Your task to perform on an android device: turn off translation in the chrome app Image 0: 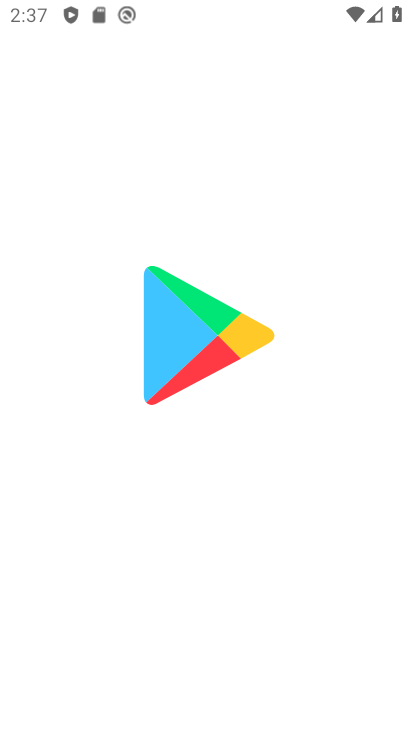
Step 0: press home button
Your task to perform on an android device: turn off translation in the chrome app Image 1: 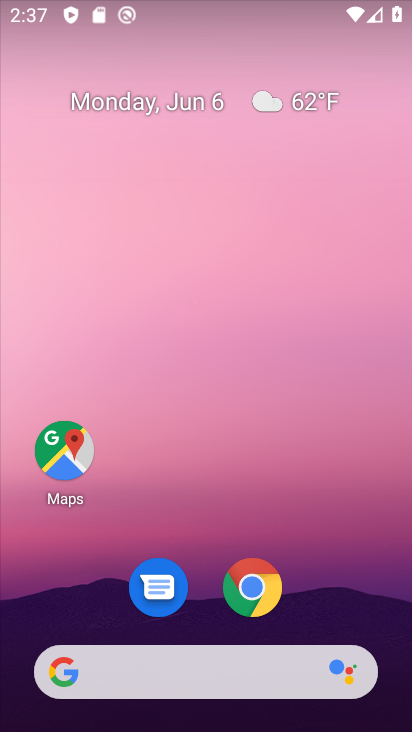
Step 1: click (241, 588)
Your task to perform on an android device: turn off translation in the chrome app Image 2: 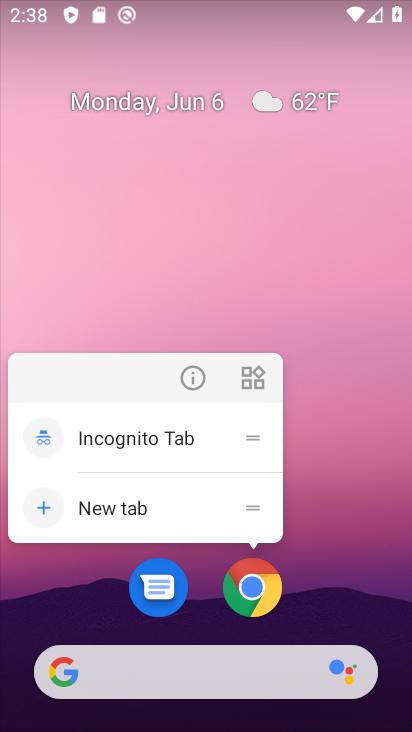
Step 2: click (257, 576)
Your task to perform on an android device: turn off translation in the chrome app Image 3: 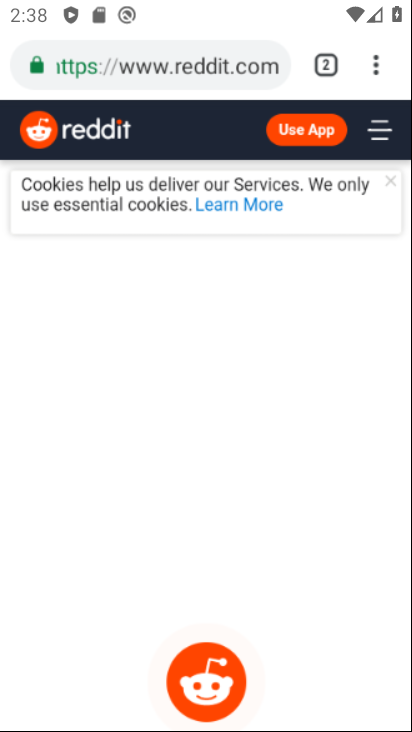
Step 3: click (250, 586)
Your task to perform on an android device: turn off translation in the chrome app Image 4: 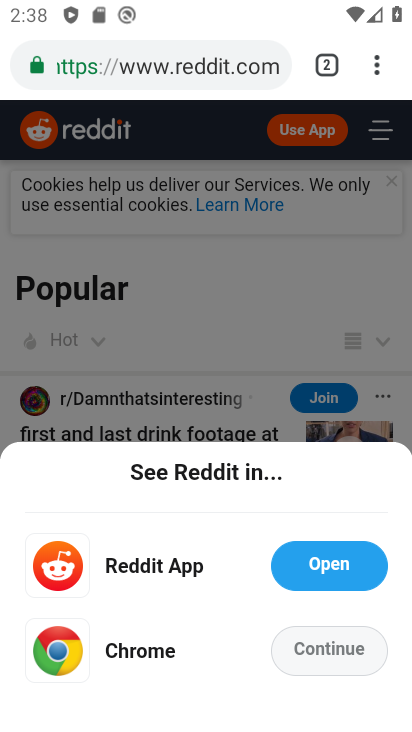
Step 4: click (376, 64)
Your task to perform on an android device: turn off translation in the chrome app Image 5: 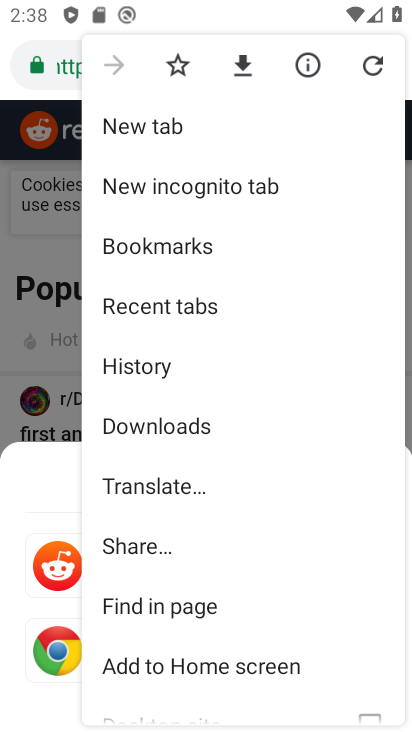
Step 5: drag from (158, 658) to (188, 218)
Your task to perform on an android device: turn off translation in the chrome app Image 6: 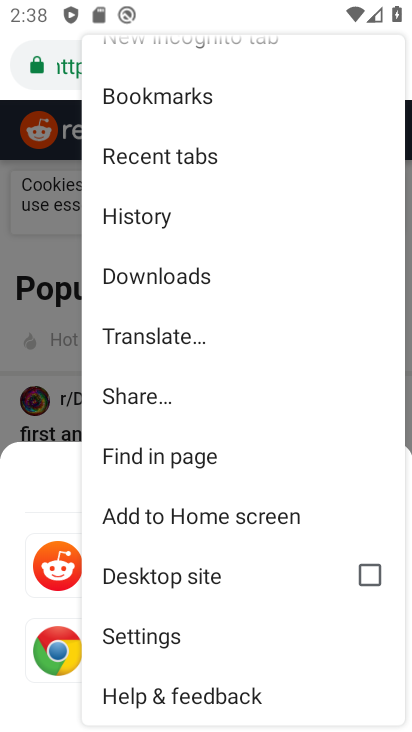
Step 6: click (164, 640)
Your task to perform on an android device: turn off translation in the chrome app Image 7: 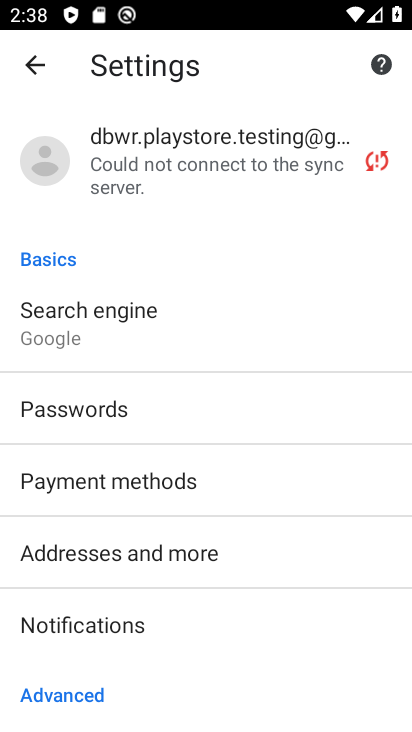
Step 7: drag from (96, 614) to (96, 183)
Your task to perform on an android device: turn off translation in the chrome app Image 8: 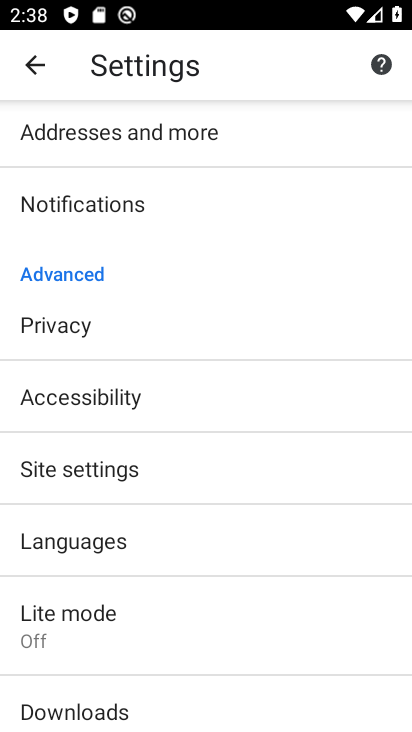
Step 8: click (78, 524)
Your task to perform on an android device: turn off translation in the chrome app Image 9: 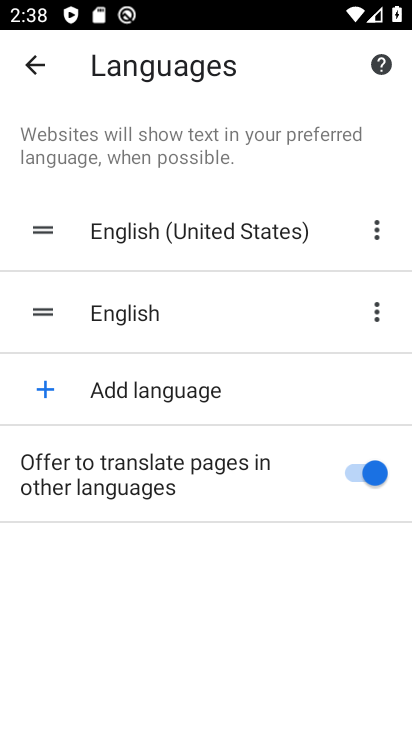
Step 9: click (362, 472)
Your task to perform on an android device: turn off translation in the chrome app Image 10: 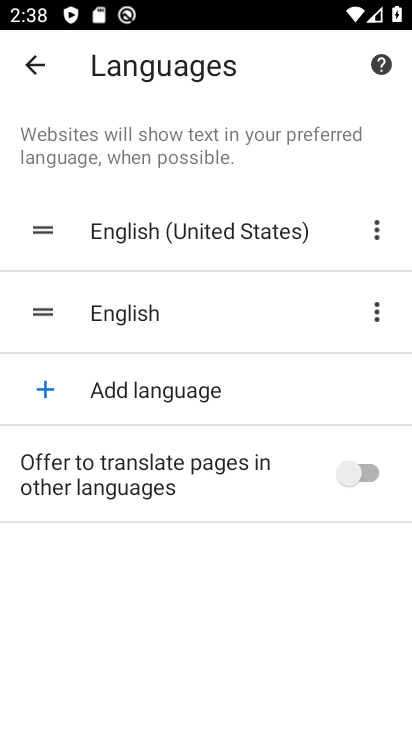
Step 10: task complete